Your task to perform on an android device: Go to notification settings Image 0: 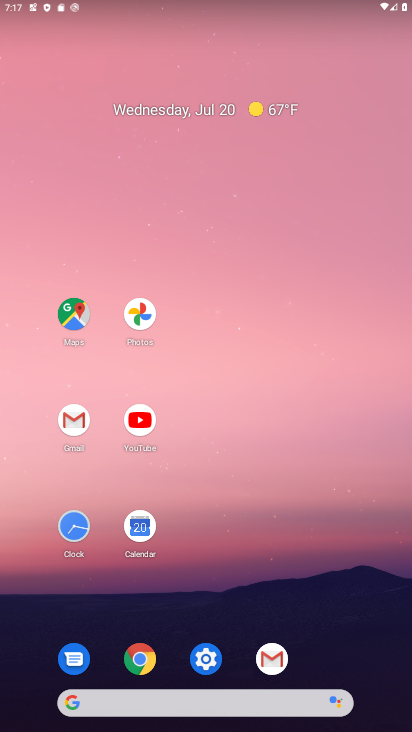
Step 0: click (212, 663)
Your task to perform on an android device: Go to notification settings Image 1: 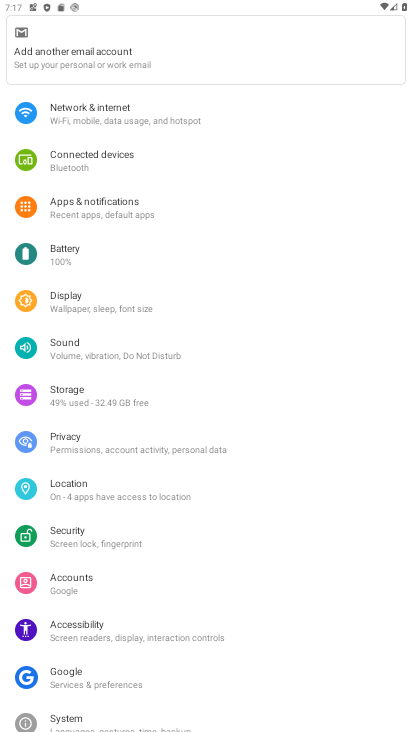
Step 1: click (90, 202)
Your task to perform on an android device: Go to notification settings Image 2: 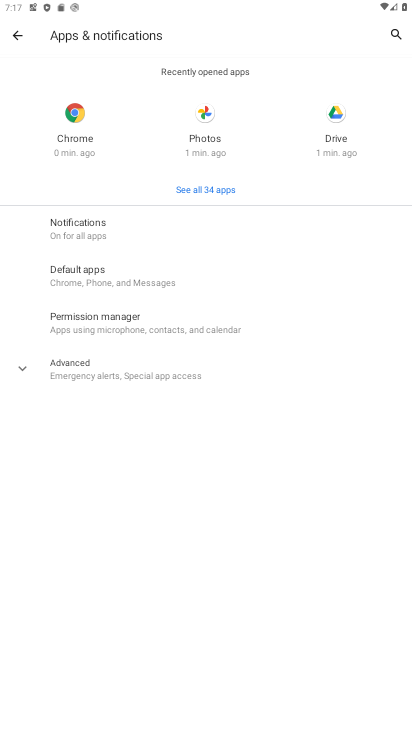
Step 2: task complete